Your task to perform on an android device: turn on data saver in the chrome app Image 0: 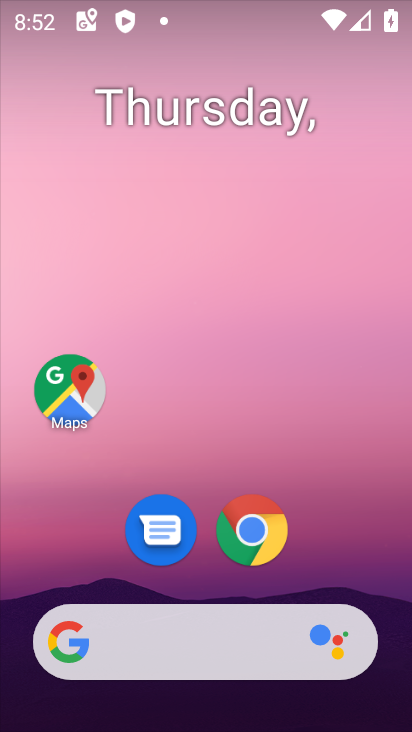
Step 0: drag from (306, 594) to (386, 103)
Your task to perform on an android device: turn on data saver in the chrome app Image 1: 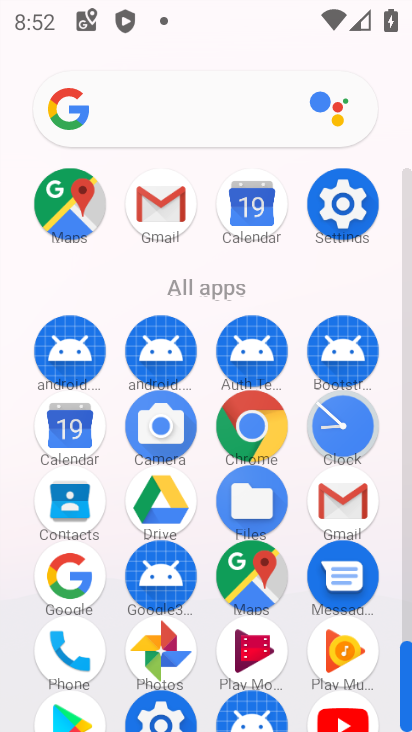
Step 1: click (269, 431)
Your task to perform on an android device: turn on data saver in the chrome app Image 2: 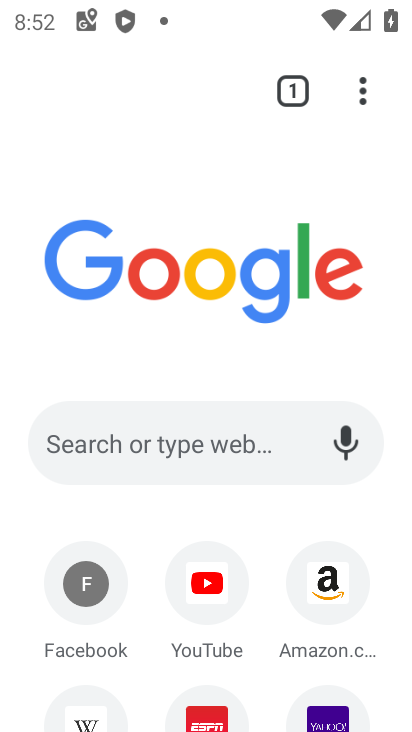
Step 2: click (362, 98)
Your task to perform on an android device: turn on data saver in the chrome app Image 3: 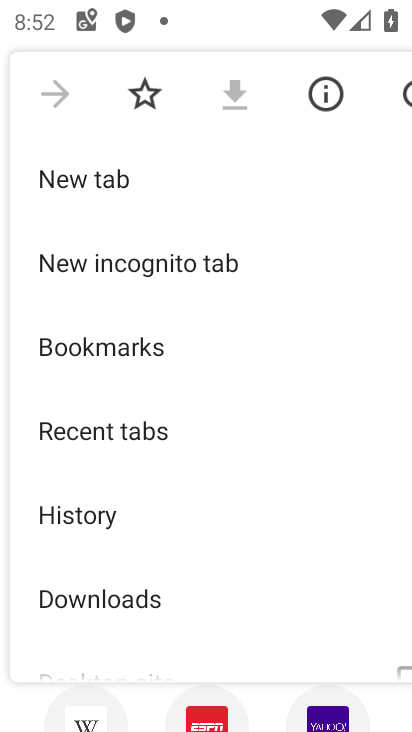
Step 3: drag from (275, 421) to (320, 212)
Your task to perform on an android device: turn on data saver in the chrome app Image 4: 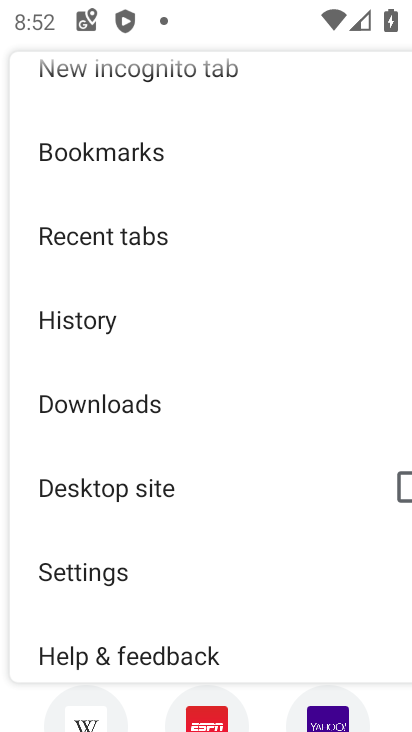
Step 4: drag from (213, 539) to (275, 216)
Your task to perform on an android device: turn on data saver in the chrome app Image 5: 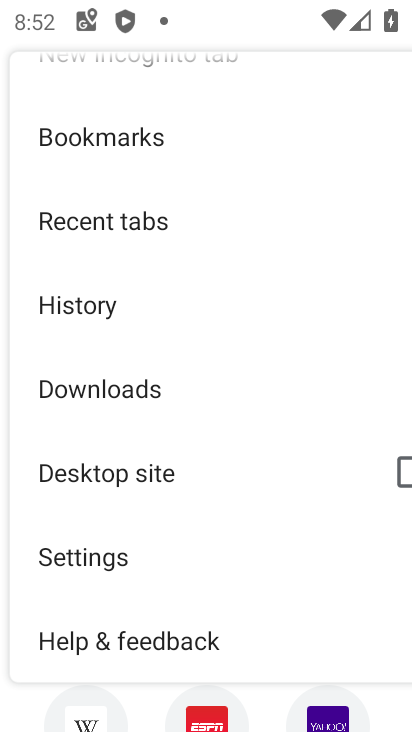
Step 5: click (162, 554)
Your task to perform on an android device: turn on data saver in the chrome app Image 6: 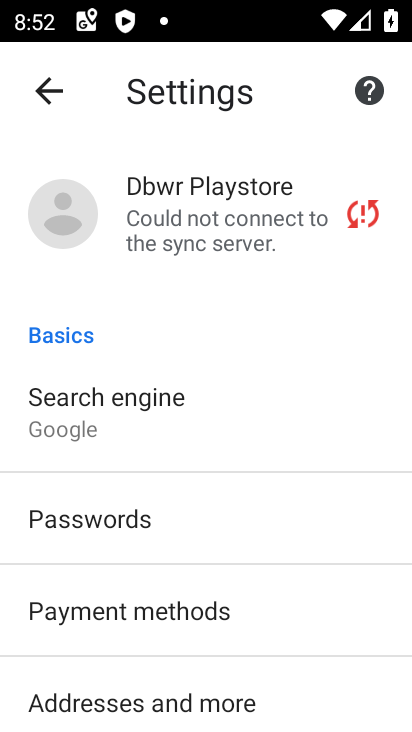
Step 6: drag from (180, 526) to (189, 423)
Your task to perform on an android device: turn on data saver in the chrome app Image 7: 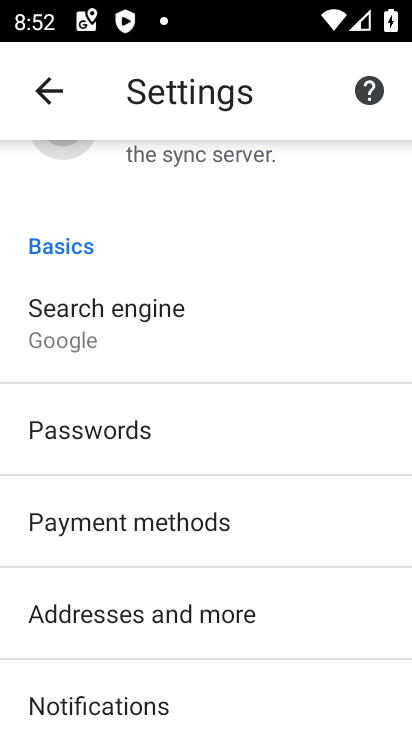
Step 7: drag from (195, 567) to (208, 436)
Your task to perform on an android device: turn on data saver in the chrome app Image 8: 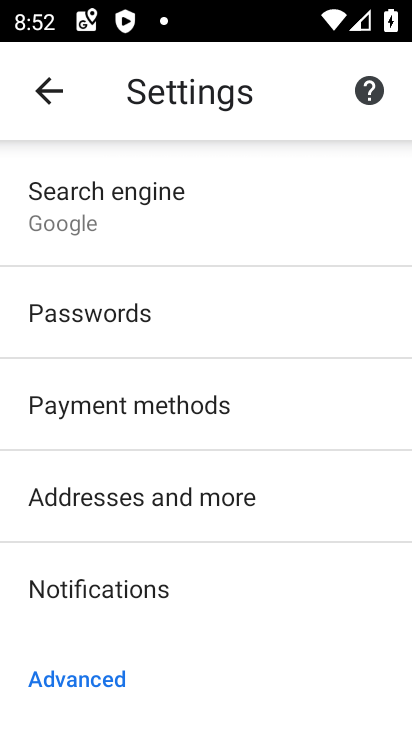
Step 8: drag from (229, 525) to (274, 256)
Your task to perform on an android device: turn on data saver in the chrome app Image 9: 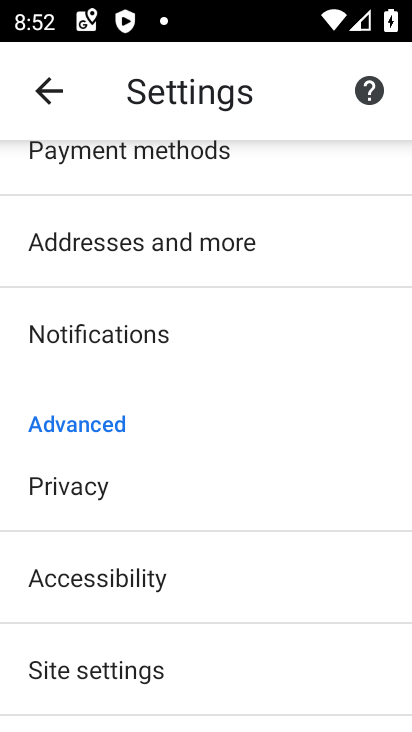
Step 9: drag from (253, 426) to (290, 258)
Your task to perform on an android device: turn on data saver in the chrome app Image 10: 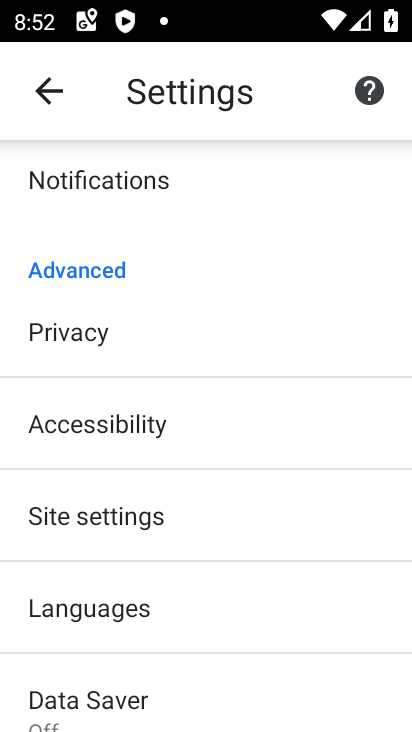
Step 10: drag from (266, 527) to (281, 419)
Your task to perform on an android device: turn on data saver in the chrome app Image 11: 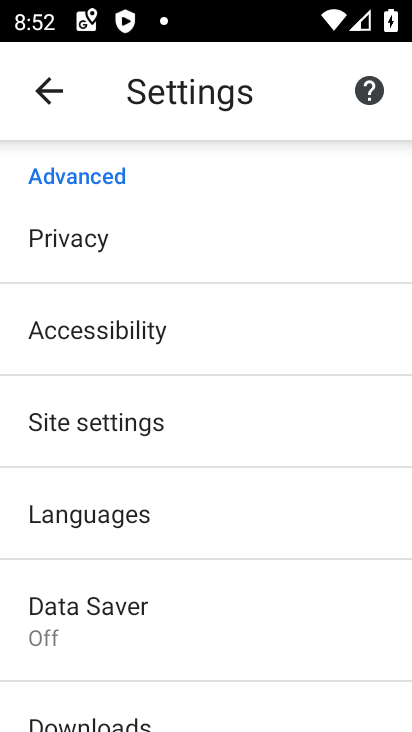
Step 11: drag from (275, 554) to (316, 403)
Your task to perform on an android device: turn on data saver in the chrome app Image 12: 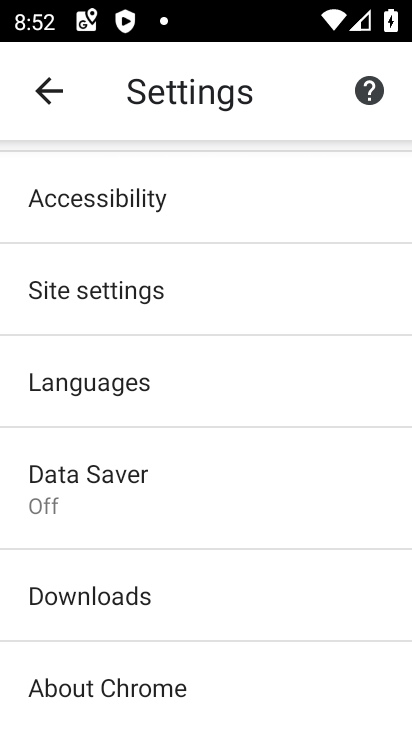
Step 12: click (230, 513)
Your task to perform on an android device: turn on data saver in the chrome app Image 13: 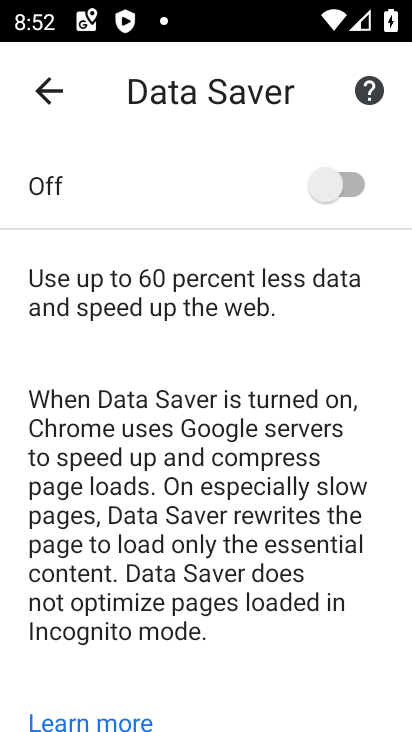
Step 13: click (368, 185)
Your task to perform on an android device: turn on data saver in the chrome app Image 14: 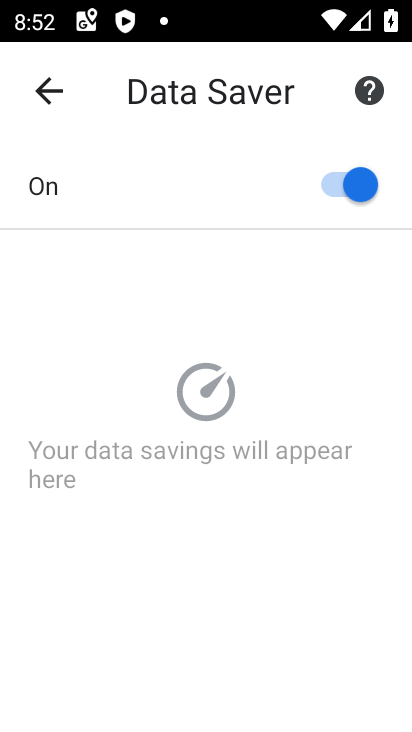
Step 14: task complete